Your task to perform on an android device: Where can I buy a nice beach blanket? Image 0: 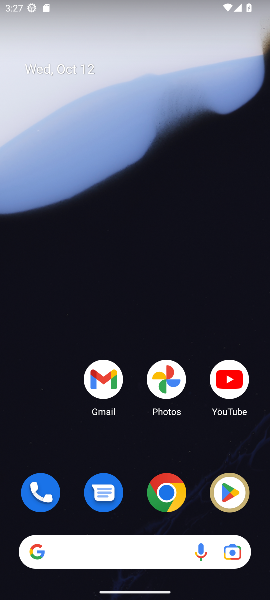
Step 0: click (162, 493)
Your task to perform on an android device: Where can I buy a nice beach blanket? Image 1: 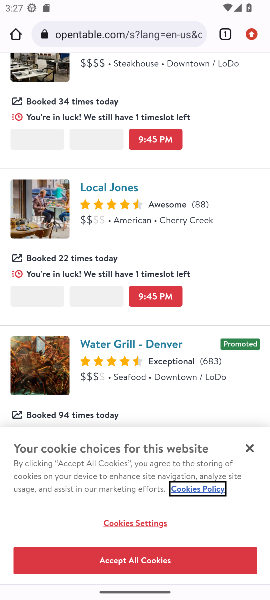
Step 1: click (121, 34)
Your task to perform on an android device: Where can I buy a nice beach blanket? Image 2: 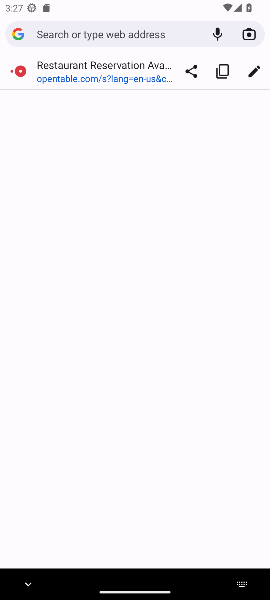
Step 2: type "beach blanket"
Your task to perform on an android device: Where can I buy a nice beach blanket? Image 3: 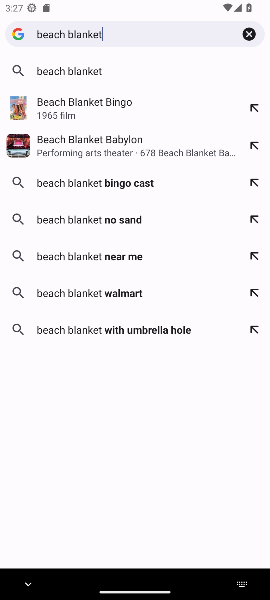
Step 3: click (60, 73)
Your task to perform on an android device: Where can I buy a nice beach blanket? Image 4: 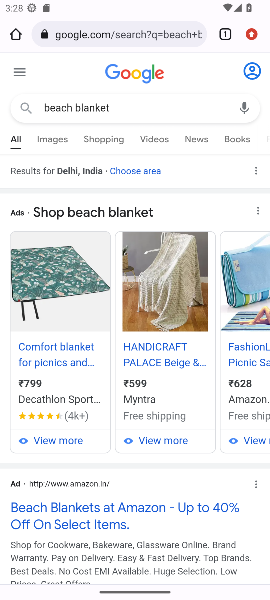
Step 4: task complete